Your task to perform on an android device: turn pop-ups on in chrome Image 0: 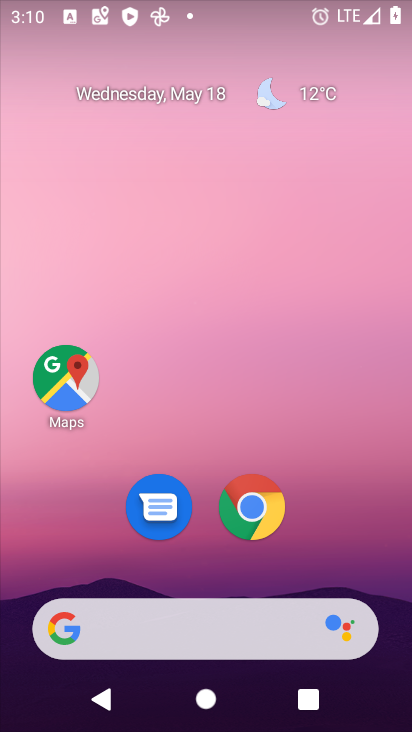
Step 0: click (258, 512)
Your task to perform on an android device: turn pop-ups on in chrome Image 1: 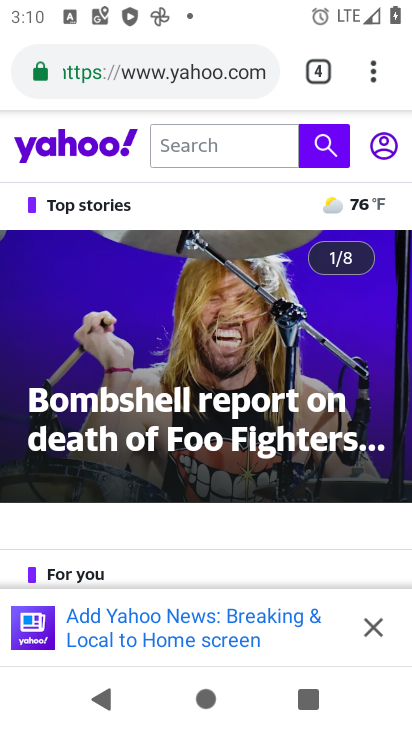
Step 1: click (370, 80)
Your task to perform on an android device: turn pop-ups on in chrome Image 2: 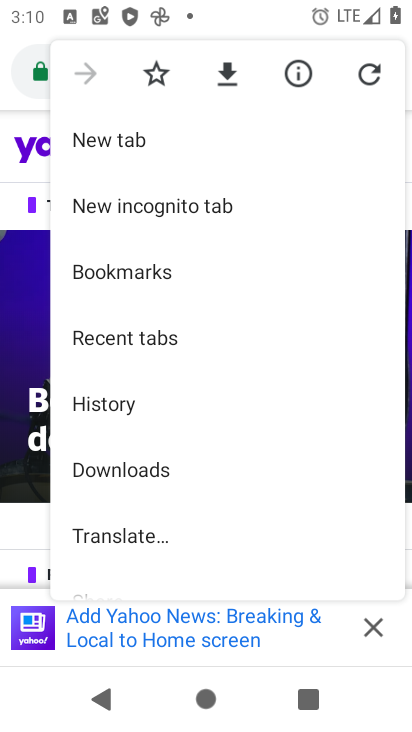
Step 2: drag from (196, 511) to (267, 177)
Your task to perform on an android device: turn pop-ups on in chrome Image 3: 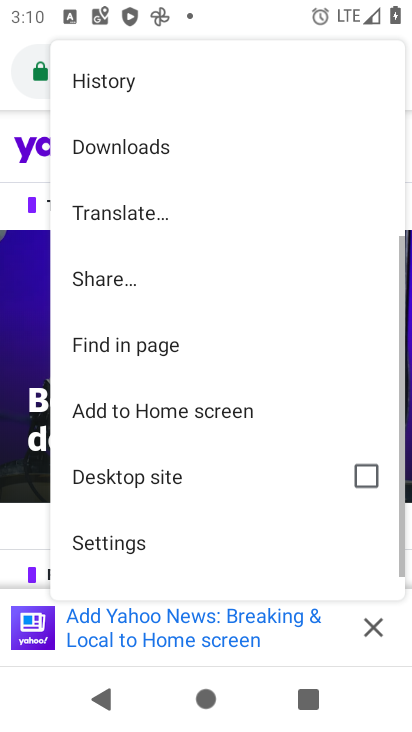
Step 3: click (133, 543)
Your task to perform on an android device: turn pop-ups on in chrome Image 4: 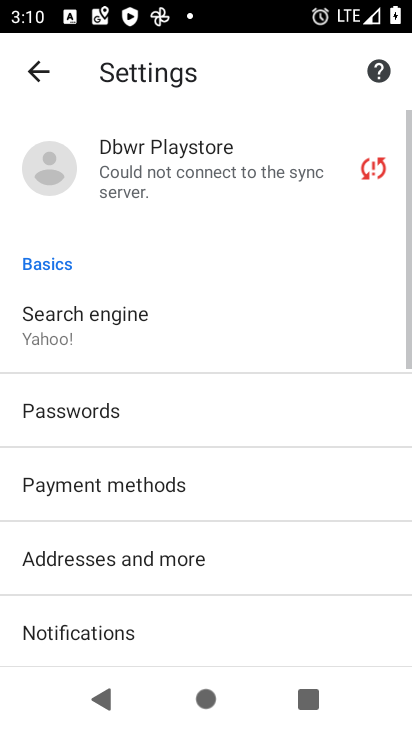
Step 4: drag from (225, 588) to (192, 199)
Your task to perform on an android device: turn pop-ups on in chrome Image 5: 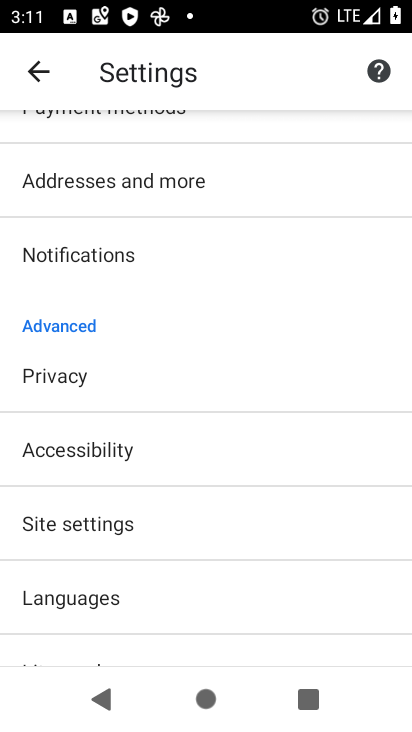
Step 5: click (78, 526)
Your task to perform on an android device: turn pop-ups on in chrome Image 6: 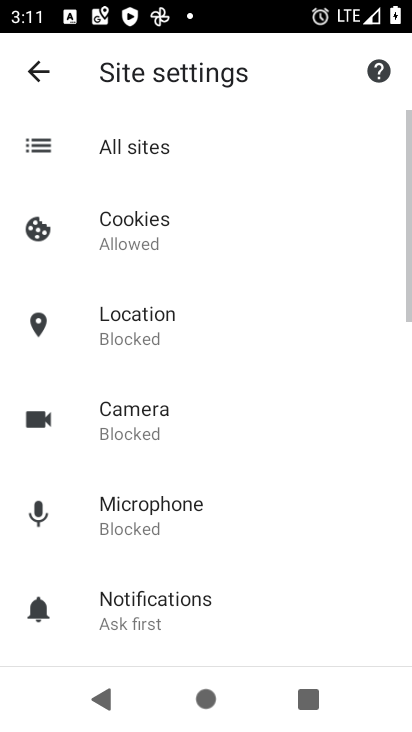
Step 6: drag from (235, 590) to (234, 185)
Your task to perform on an android device: turn pop-ups on in chrome Image 7: 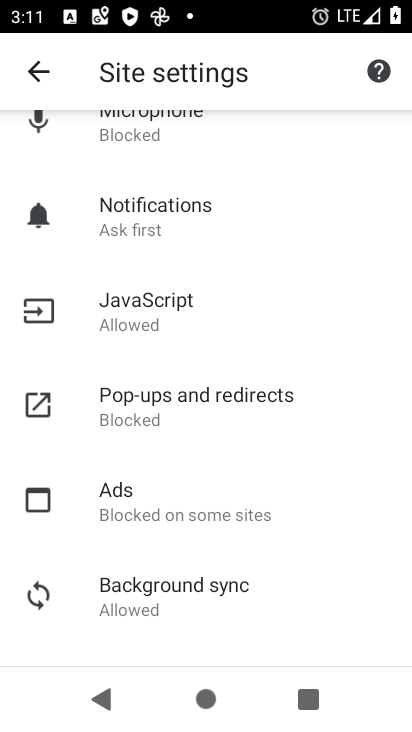
Step 7: click (140, 409)
Your task to perform on an android device: turn pop-ups on in chrome Image 8: 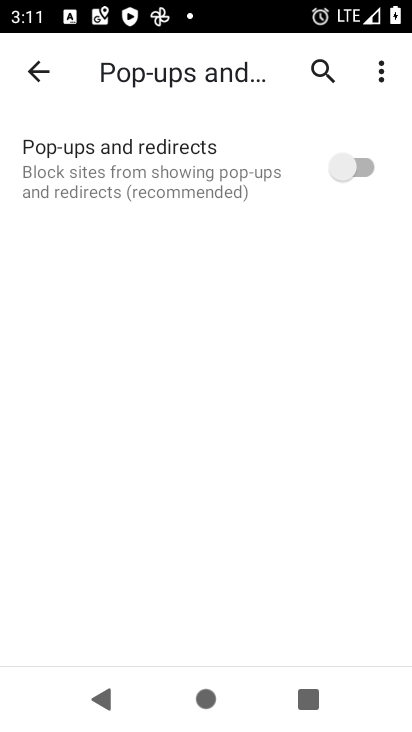
Step 8: click (357, 165)
Your task to perform on an android device: turn pop-ups on in chrome Image 9: 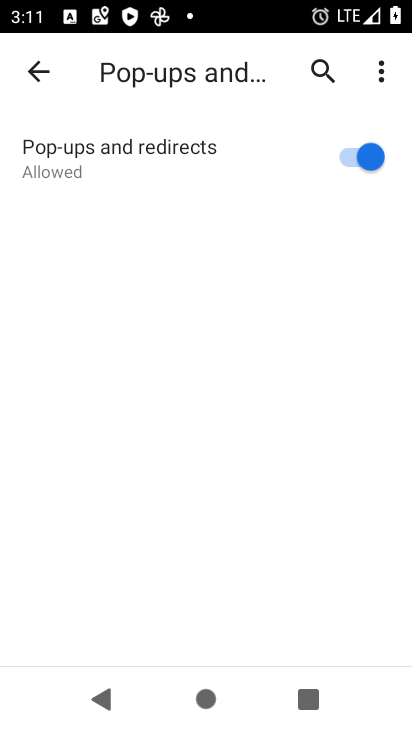
Step 9: task complete